Your task to perform on an android device: remove spam from my inbox in the gmail app Image 0: 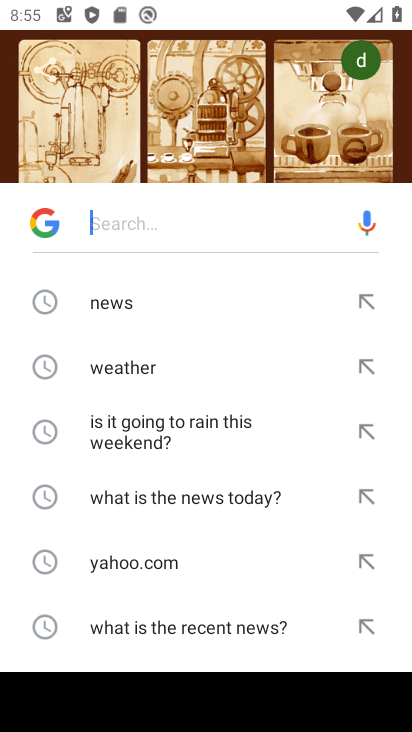
Step 0: press home button
Your task to perform on an android device: remove spam from my inbox in the gmail app Image 1: 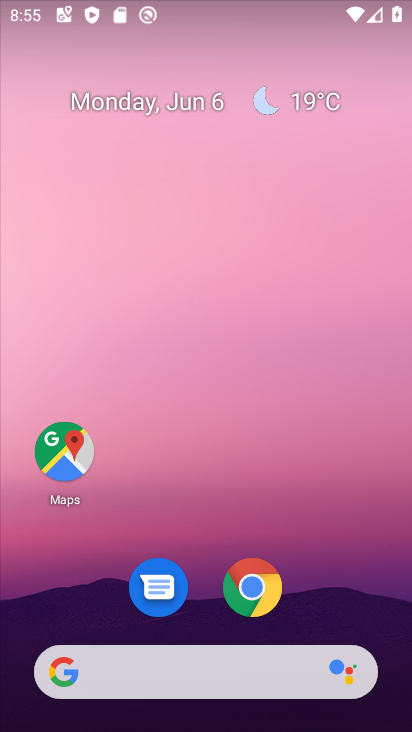
Step 1: drag from (178, 650) to (201, 102)
Your task to perform on an android device: remove spam from my inbox in the gmail app Image 2: 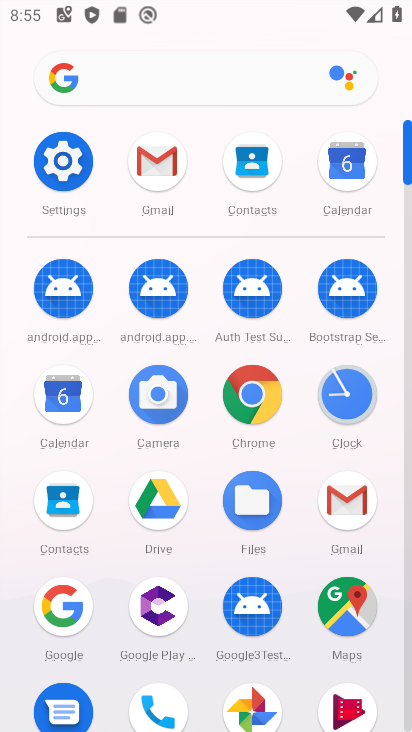
Step 2: click (163, 158)
Your task to perform on an android device: remove spam from my inbox in the gmail app Image 3: 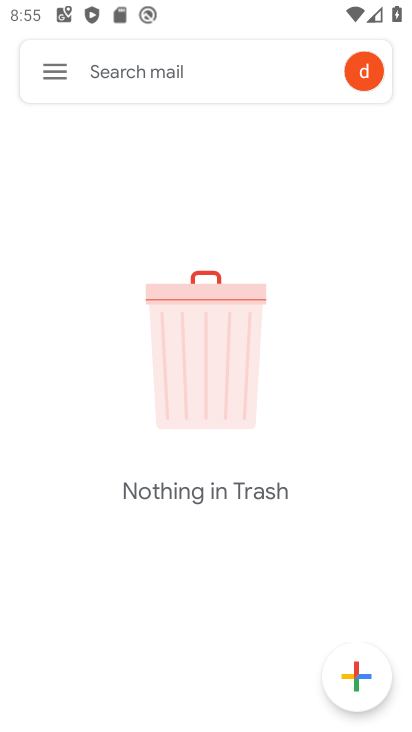
Step 3: click (56, 77)
Your task to perform on an android device: remove spam from my inbox in the gmail app Image 4: 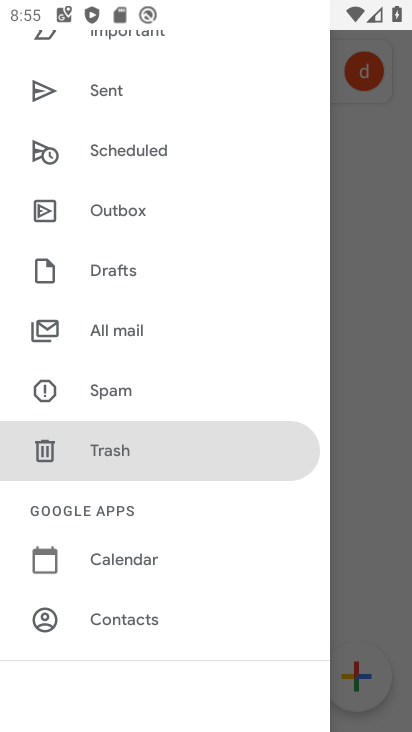
Step 4: click (132, 388)
Your task to perform on an android device: remove spam from my inbox in the gmail app Image 5: 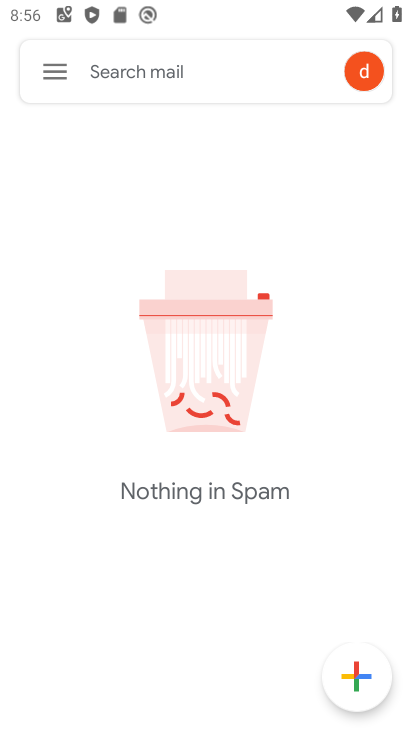
Step 5: task complete